Your task to perform on an android device: Open Google Chrome Image 0: 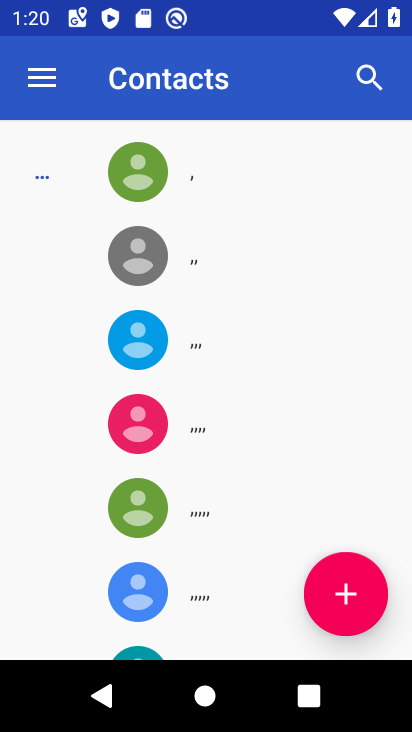
Step 0: press home button
Your task to perform on an android device: Open Google Chrome Image 1: 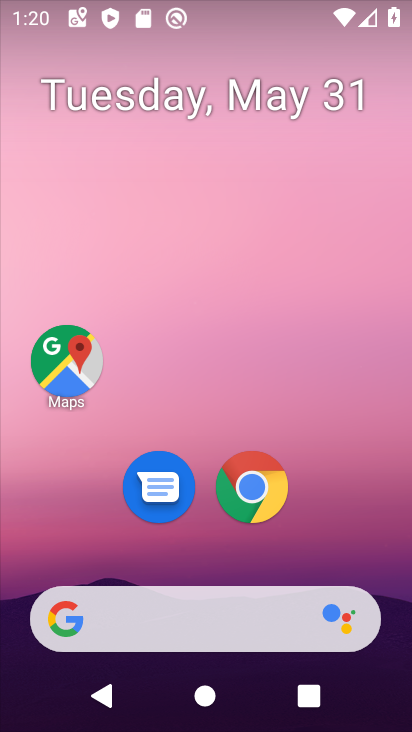
Step 1: drag from (57, 571) to (223, 8)
Your task to perform on an android device: Open Google Chrome Image 2: 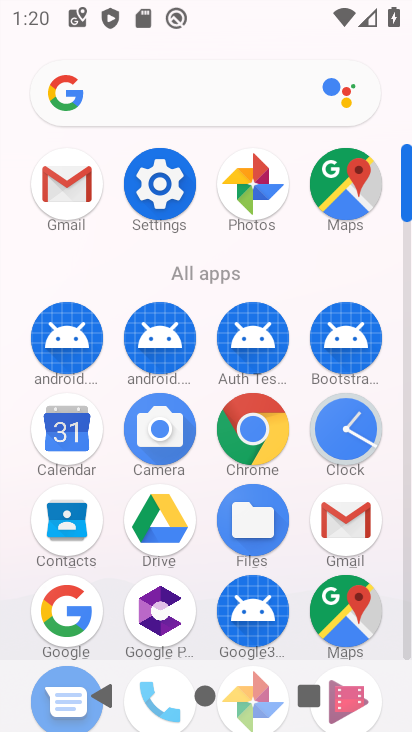
Step 2: click (247, 435)
Your task to perform on an android device: Open Google Chrome Image 3: 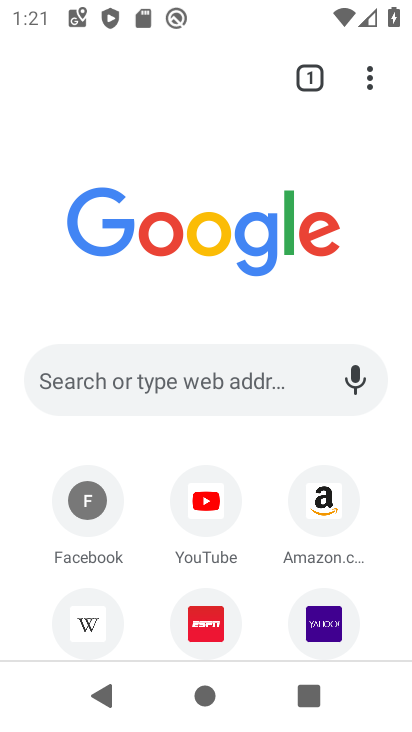
Step 3: task complete